Your task to perform on an android device: Open ESPN.com Image 0: 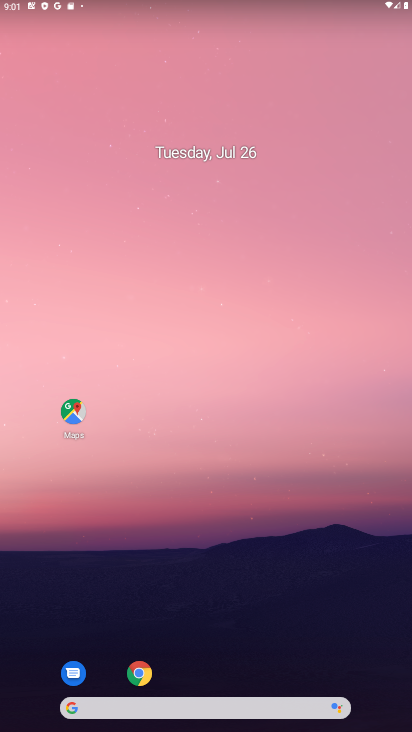
Step 0: drag from (246, 634) to (211, 229)
Your task to perform on an android device: Open ESPN.com Image 1: 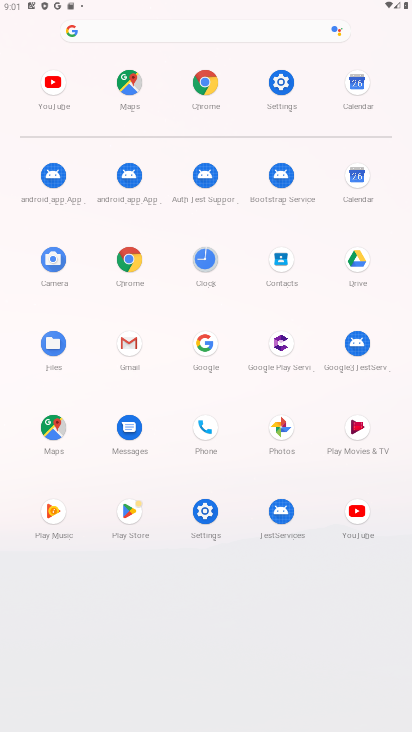
Step 1: click (198, 78)
Your task to perform on an android device: Open ESPN.com Image 2: 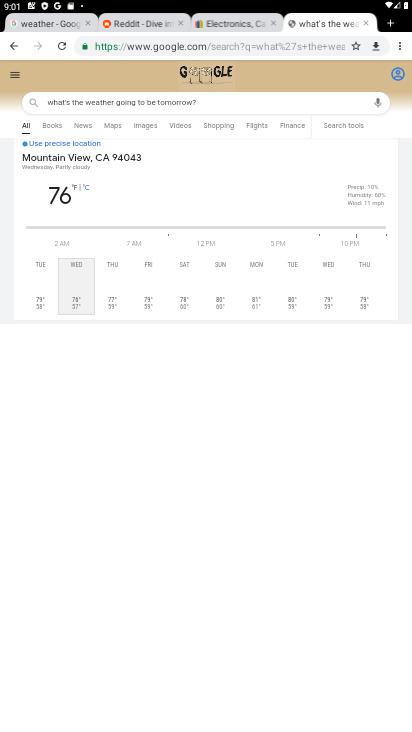
Step 2: click (394, 48)
Your task to perform on an android device: Open ESPN.com Image 3: 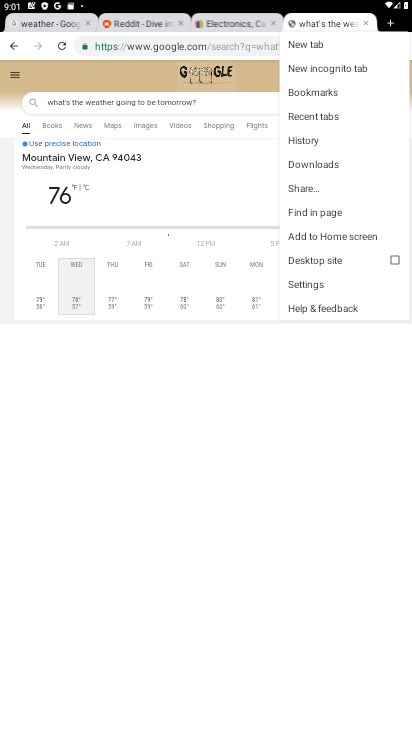
Step 3: click (290, 45)
Your task to perform on an android device: Open ESPN.com Image 4: 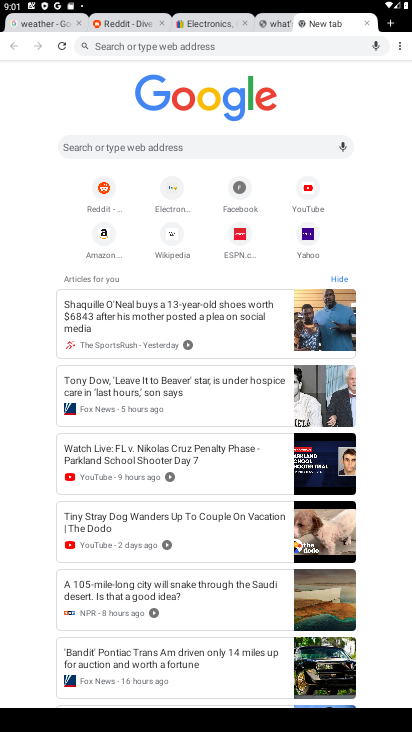
Step 4: click (238, 233)
Your task to perform on an android device: Open ESPN.com Image 5: 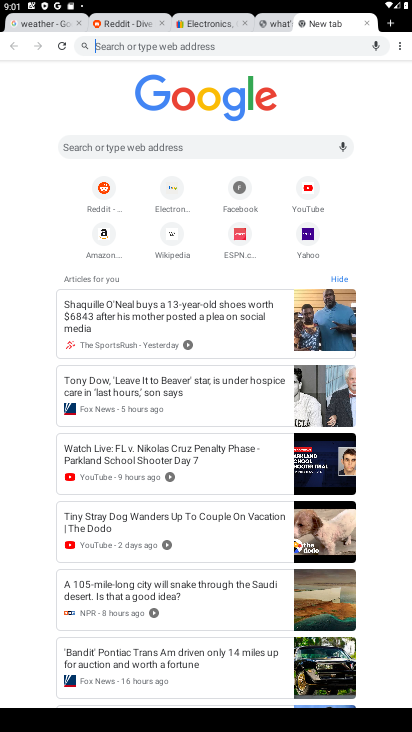
Step 5: click (238, 233)
Your task to perform on an android device: Open ESPN.com Image 6: 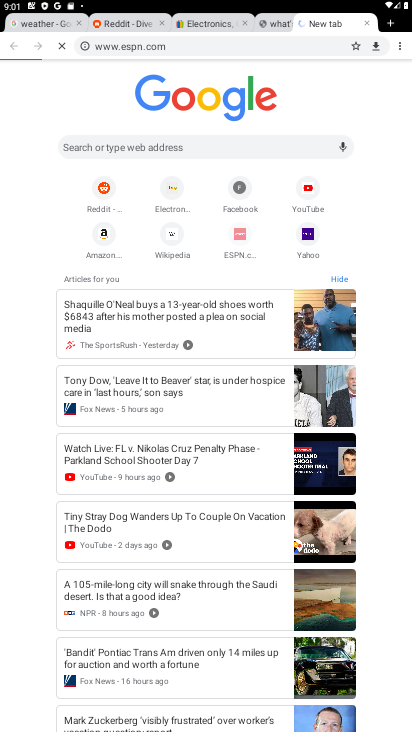
Step 6: click (238, 228)
Your task to perform on an android device: Open ESPN.com Image 7: 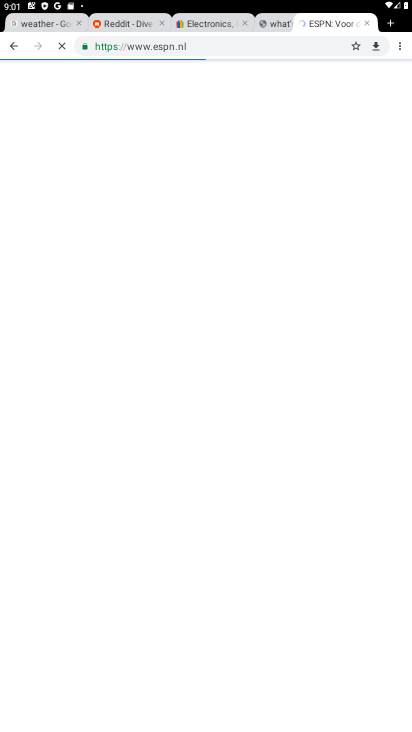
Step 7: task complete